Your task to perform on an android device: Go to CNN.com Image 0: 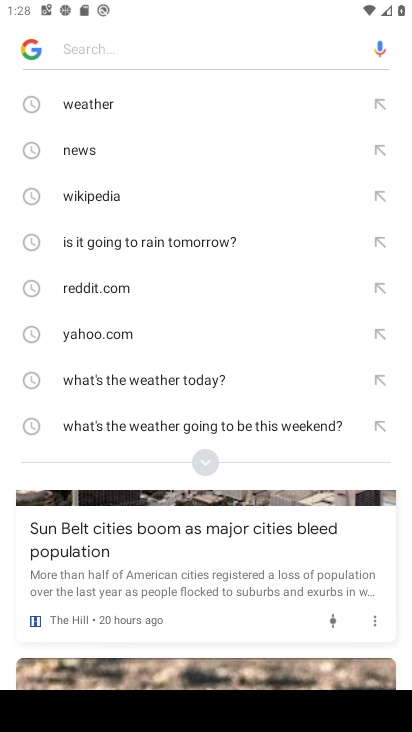
Step 0: press home button
Your task to perform on an android device: Go to CNN.com Image 1: 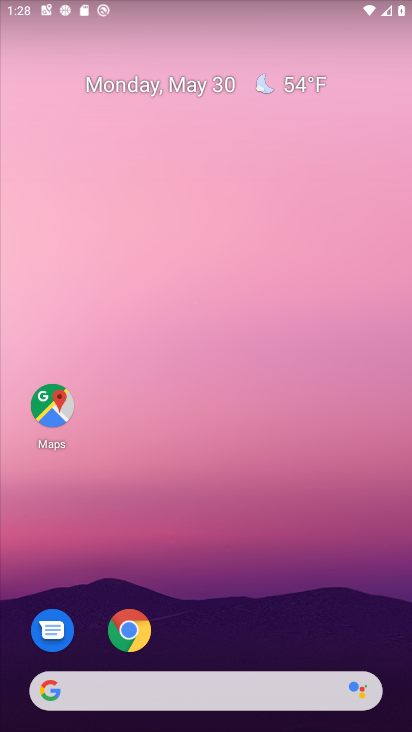
Step 1: click (136, 626)
Your task to perform on an android device: Go to CNN.com Image 2: 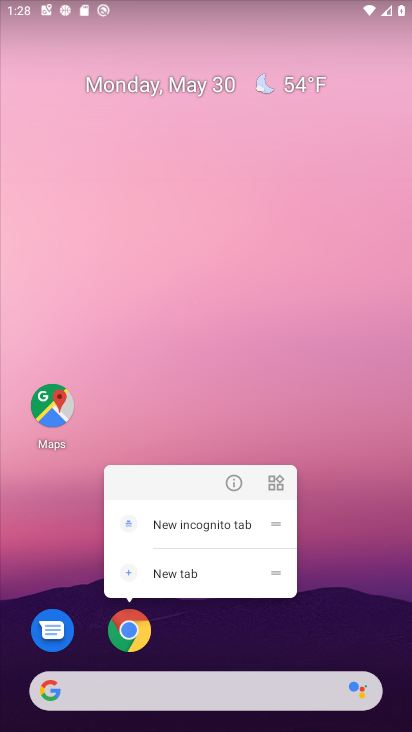
Step 2: click (128, 632)
Your task to perform on an android device: Go to CNN.com Image 3: 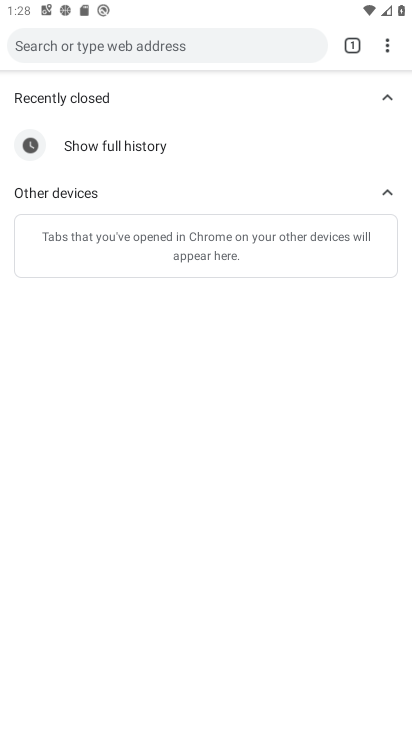
Step 3: drag from (388, 48) to (320, 96)
Your task to perform on an android device: Go to CNN.com Image 4: 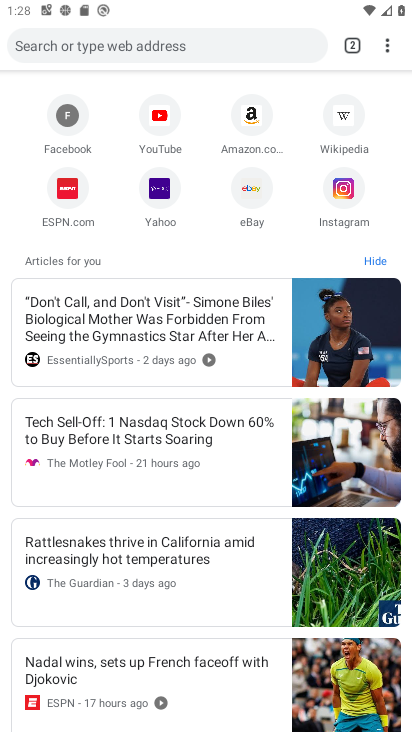
Step 4: click (144, 45)
Your task to perform on an android device: Go to CNN.com Image 5: 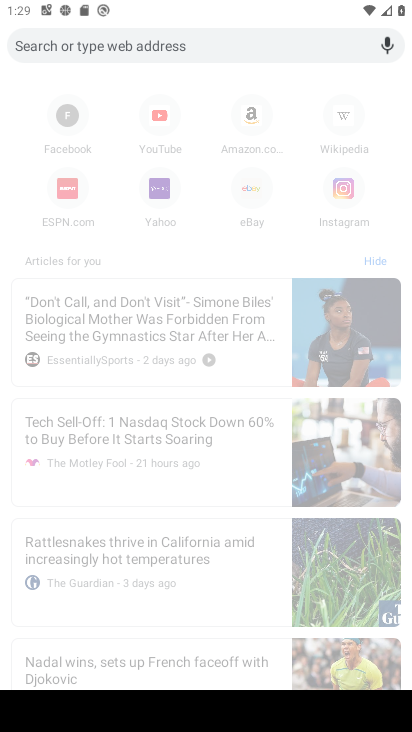
Step 5: type "cnn.com"
Your task to perform on an android device: Go to CNN.com Image 6: 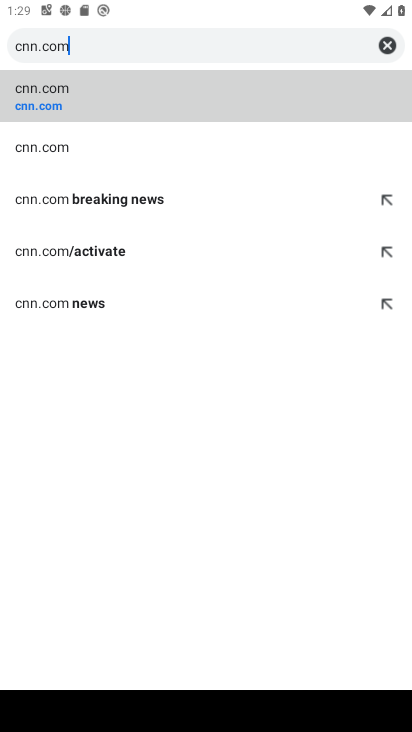
Step 6: click (89, 94)
Your task to perform on an android device: Go to CNN.com Image 7: 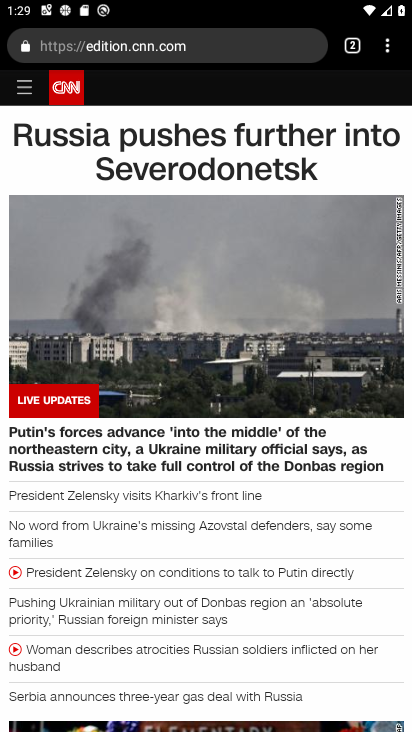
Step 7: drag from (217, 680) to (357, 139)
Your task to perform on an android device: Go to CNN.com Image 8: 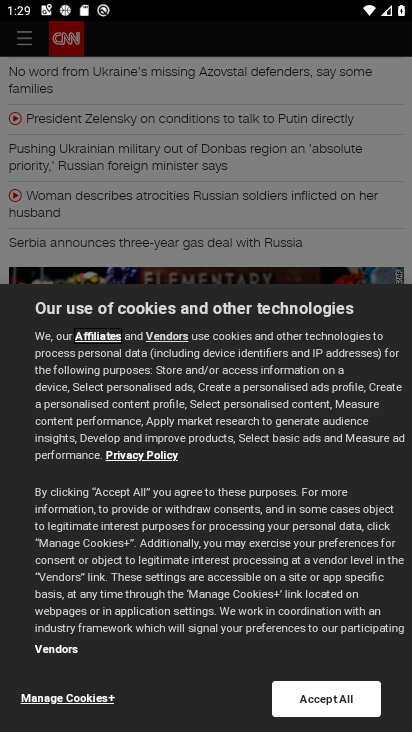
Step 8: click (315, 701)
Your task to perform on an android device: Go to CNN.com Image 9: 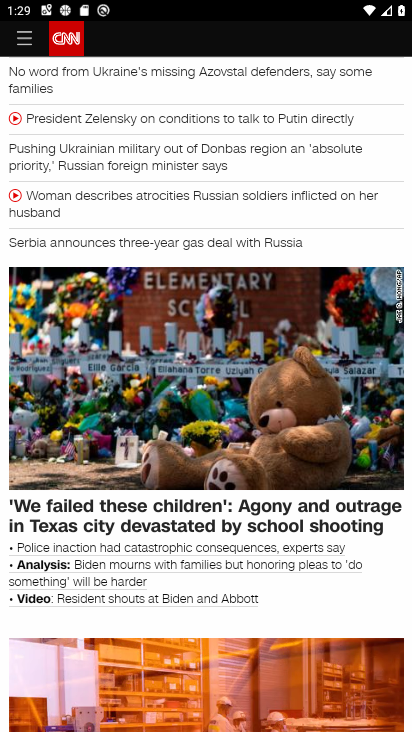
Step 9: task complete